Your task to perform on an android device: Play the last video I watched on Youtube Image 0: 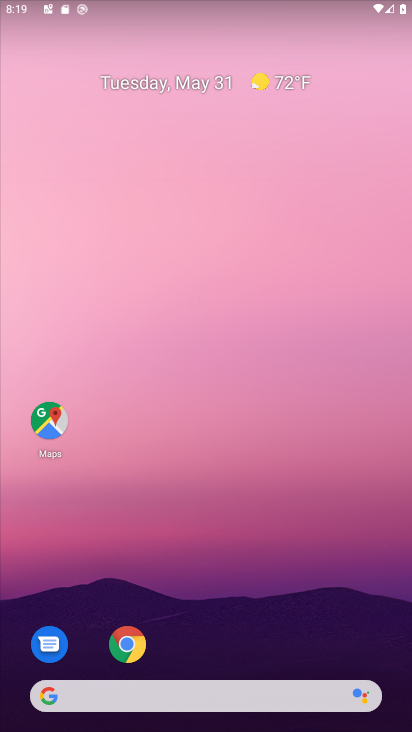
Step 0: press home button
Your task to perform on an android device: Play the last video I watched on Youtube Image 1: 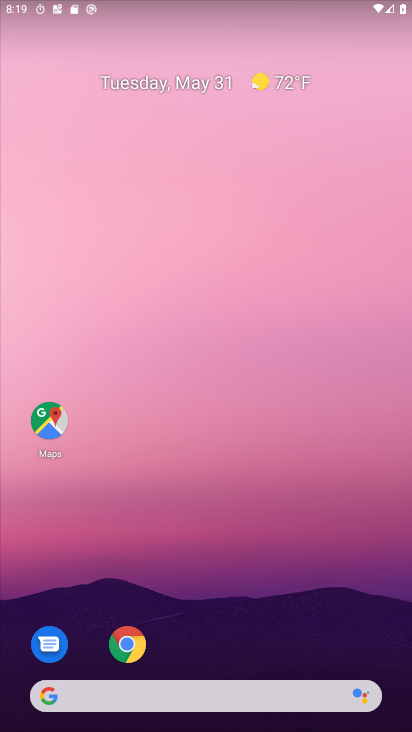
Step 1: press home button
Your task to perform on an android device: Play the last video I watched on Youtube Image 2: 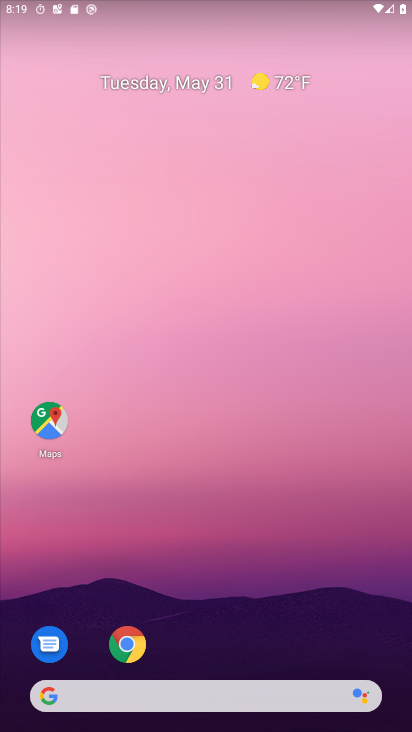
Step 2: drag from (220, 662) to (207, 71)
Your task to perform on an android device: Play the last video I watched on Youtube Image 3: 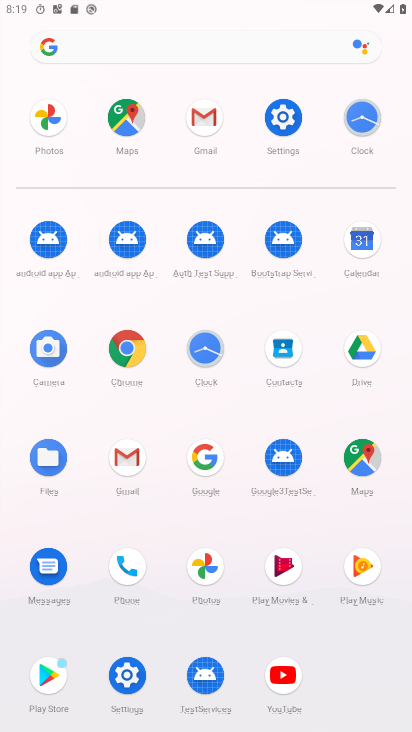
Step 3: click (280, 669)
Your task to perform on an android device: Play the last video I watched on Youtube Image 4: 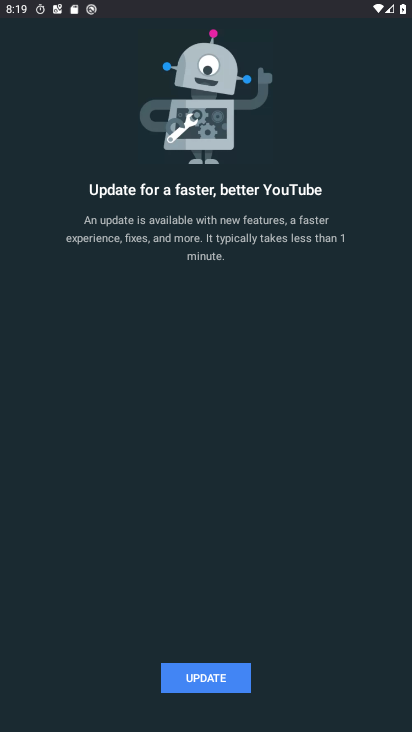
Step 4: click (203, 672)
Your task to perform on an android device: Play the last video I watched on Youtube Image 5: 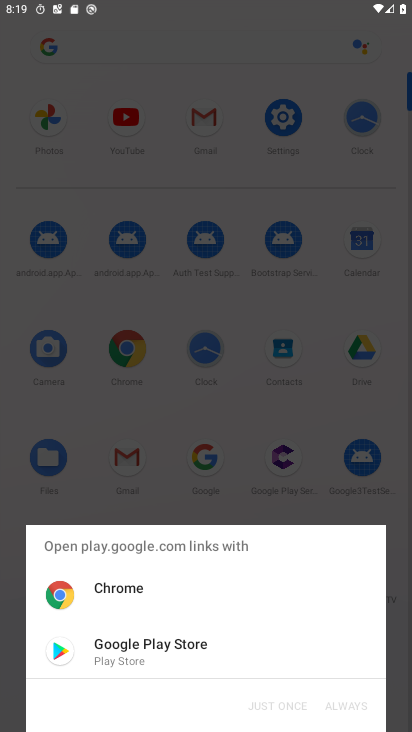
Step 5: click (114, 642)
Your task to perform on an android device: Play the last video I watched on Youtube Image 6: 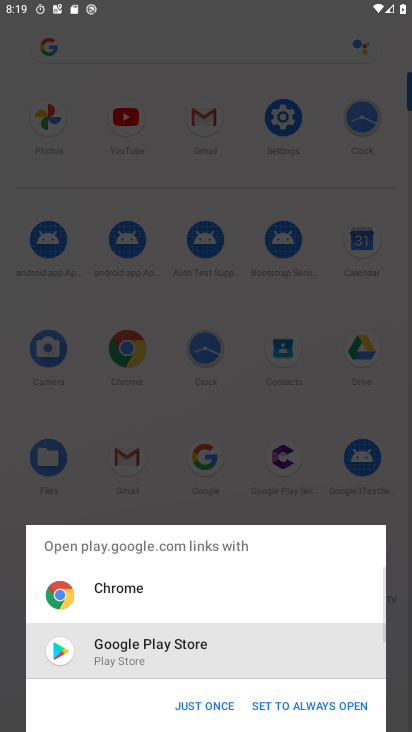
Step 6: click (196, 699)
Your task to perform on an android device: Play the last video I watched on Youtube Image 7: 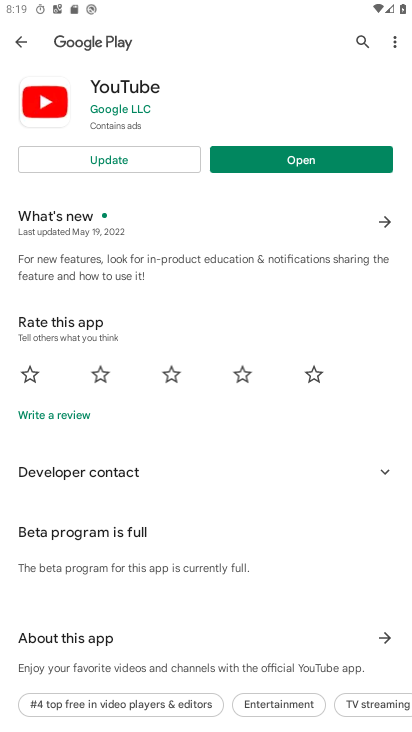
Step 7: click (106, 154)
Your task to perform on an android device: Play the last video I watched on Youtube Image 8: 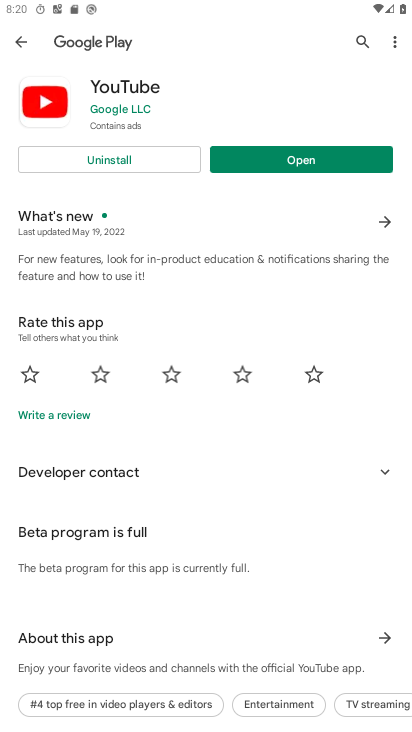
Step 8: click (320, 157)
Your task to perform on an android device: Play the last video I watched on Youtube Image 9: 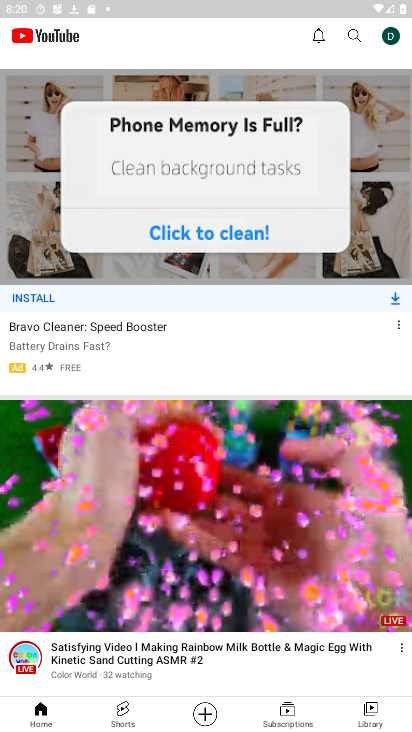
Step 9: click (368, 707)
Your task to perform on an android device: Play the last video I watched on Youtube Image 10: 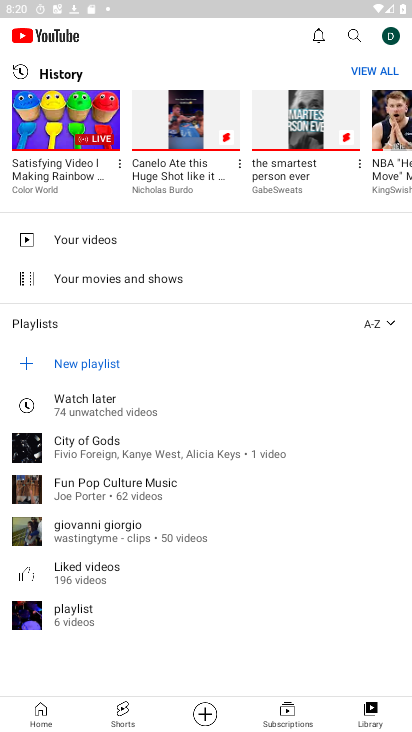
Step 10: click (57, 128)
Your task to perform on an android device: Play the last video I watched on Youtube Image 11: 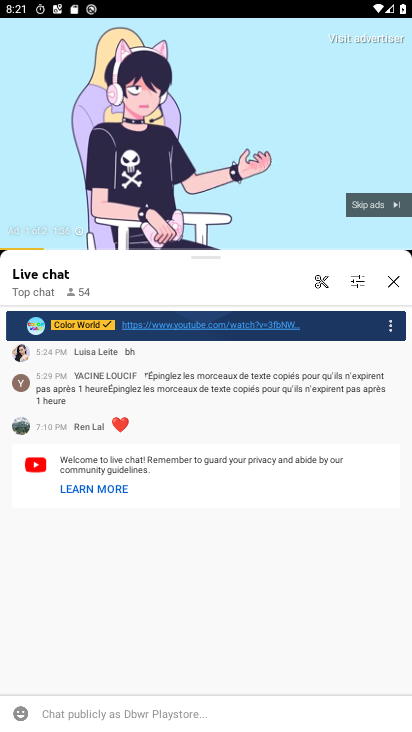
Step 11: click (368, 200)
Your task to perform on an android device: Play the last video I watched on Youtube Image 12: 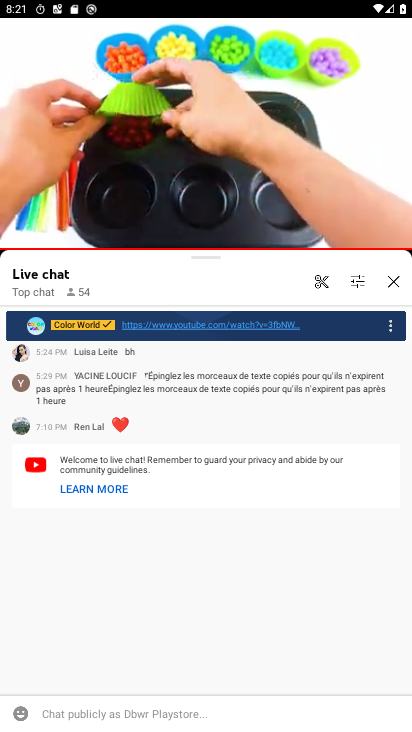
Step 12: task complete